Your task to perform on an android device: open a bookmark in the chrome app Image 0: 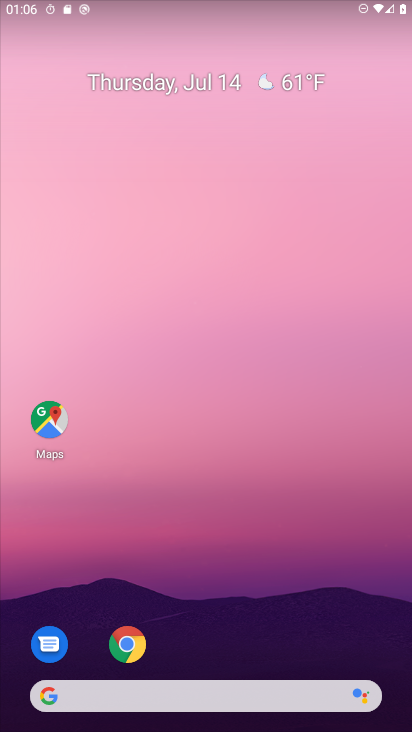
Step 0: drag from (253, 494) to (194, 60)
Your task to perform on an android device: open a bookmark in the chrome app Image 1: 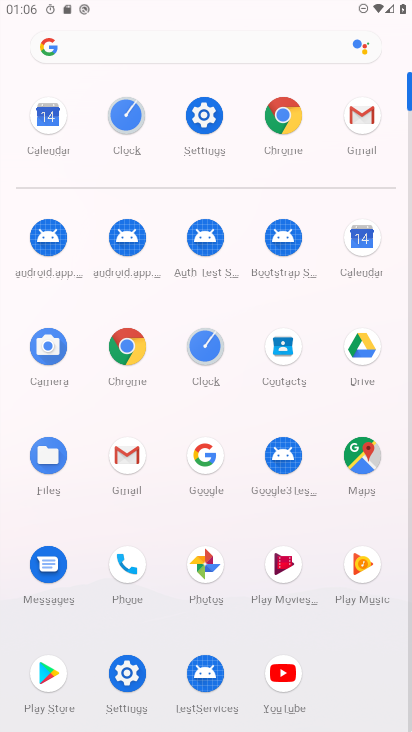
Step 1: click (284, 120)
Your task to perform on an android device: open a bookmark in the chrome app Image 2: 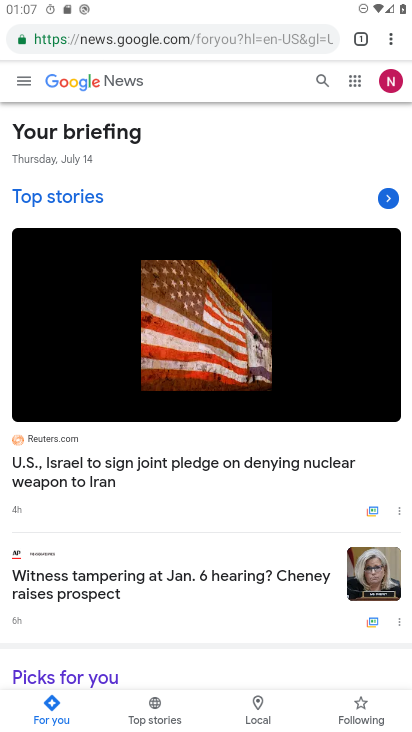
Step 2: drag from (387, 27) to (265, 155)
Your task to perform on an android device: open a bookmark in the chrome app Image 3: 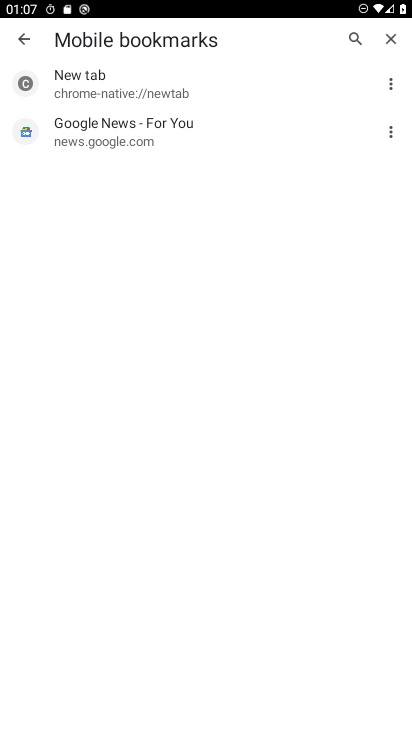
Step 3: click (124, 122)
Your task to perform on an android device: open a bookmark in the chrome app Image 4: 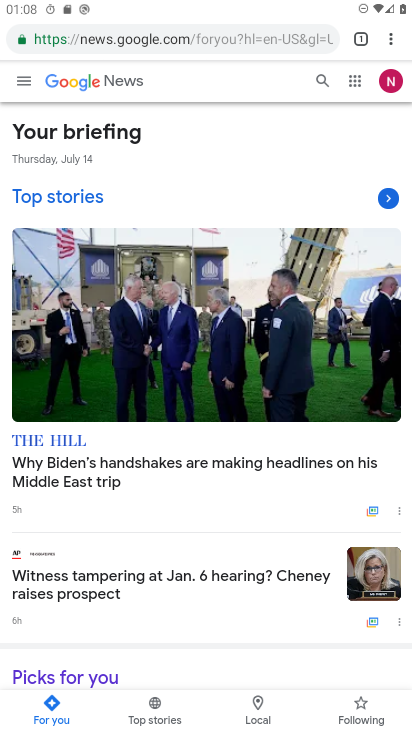
Step 4: task complete